Your task to perform on an android device: Turn on the flashlight Image 0: 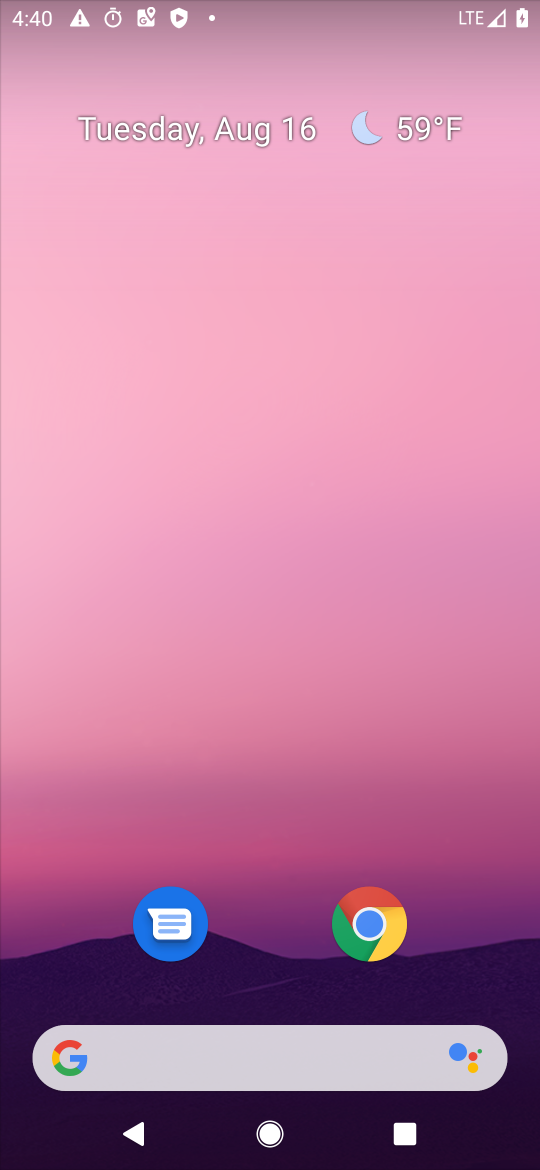
Step 0: drag from (239, 936) to (350, 69)
Your task to perform on an android device: Turn on the flashlight Image 1: 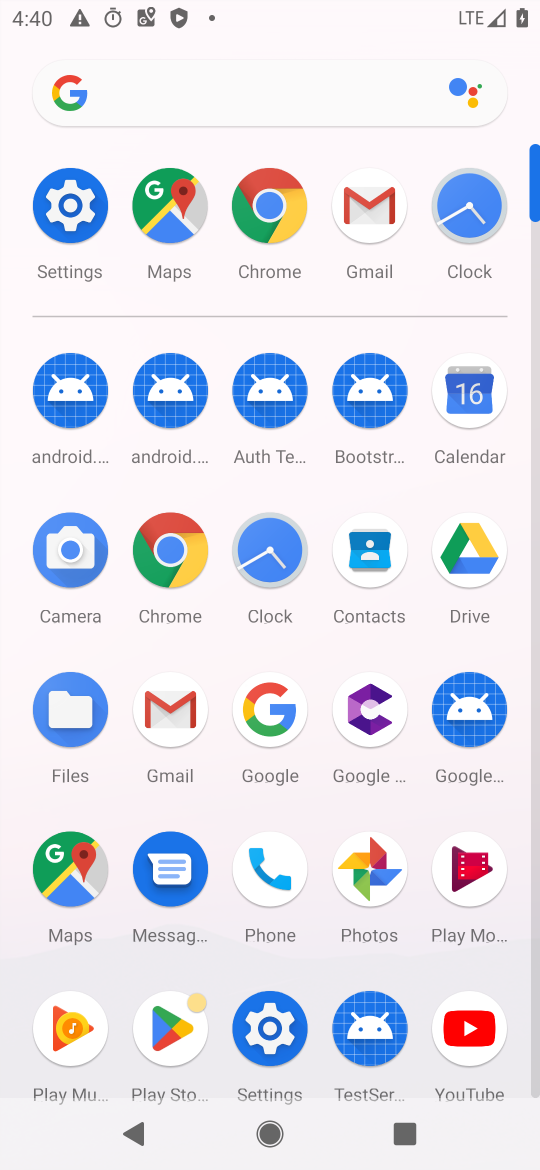
Step 1: click (58, 228)
Your task to perform on an android device: Turn on the flashlight Image 2: 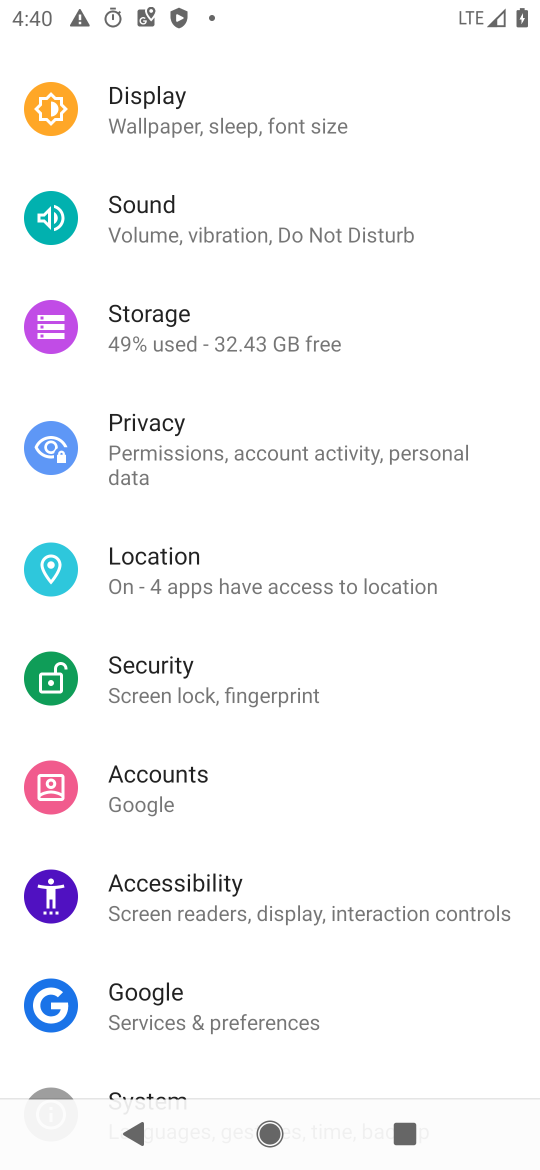
Step 2: task complete